Your task to perform on an android device: add a contact Image 0: 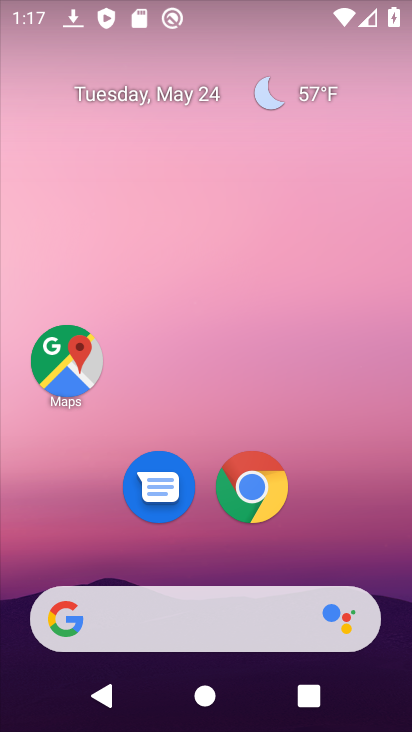
Step 0: drag from (235, 724) to (235, 23)
Your task to perform on an android device: add a contact Image 1: 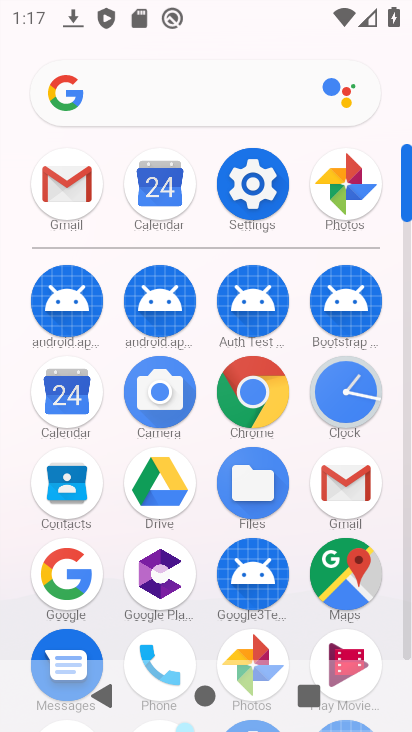
Step 1: click (68, 486)
Your task to perform on an android device: add a contact Image 2: 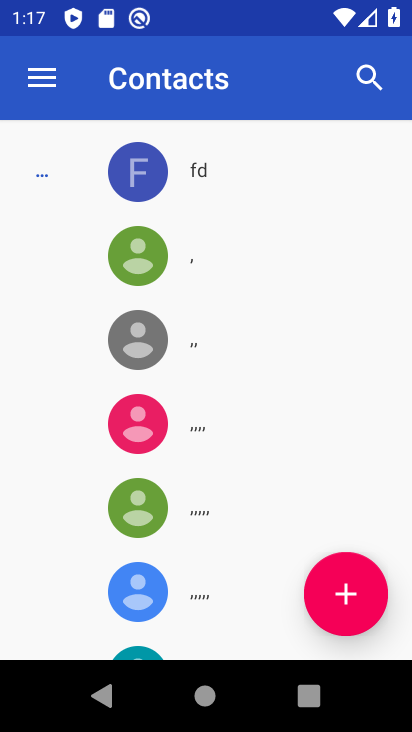
Step 2: click (353, 594)
Your task to perform on an android device: add a contact Image 3: 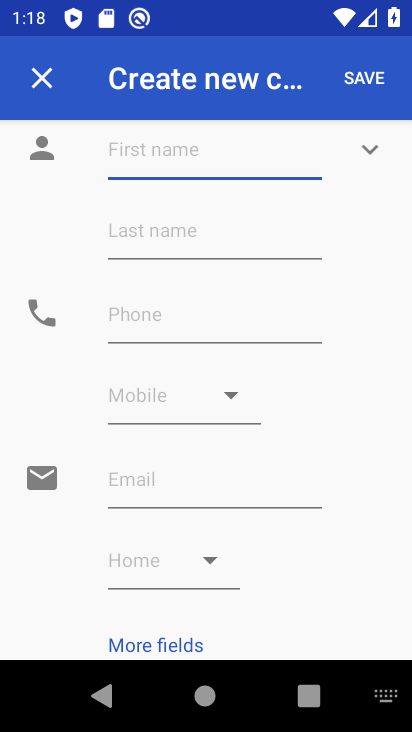
Step 3: type "jambuan"
Your task to perform on an android device: add a contact Image 4: 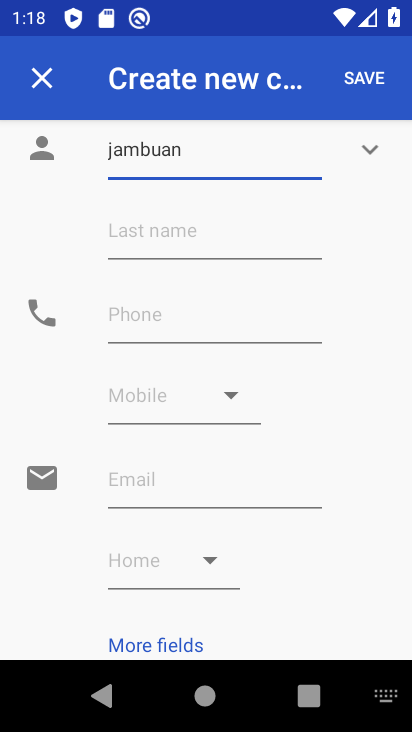
Step 4: click (204, 313)
Your task to perform on an android device: add a contact Image 5: 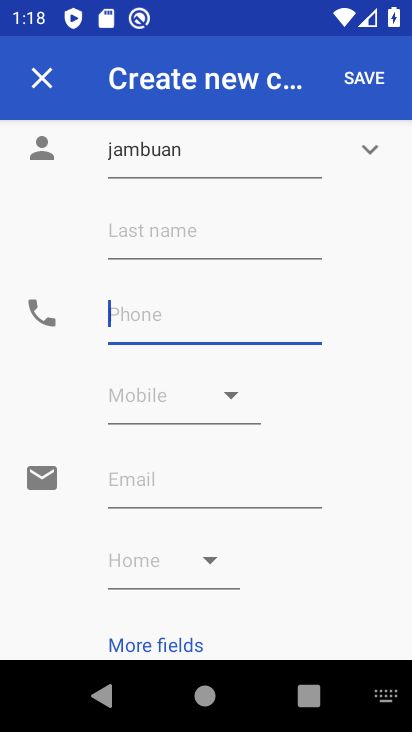
Step 5: type "888888"
Your task to perform on an android device: add a contact Image 6: 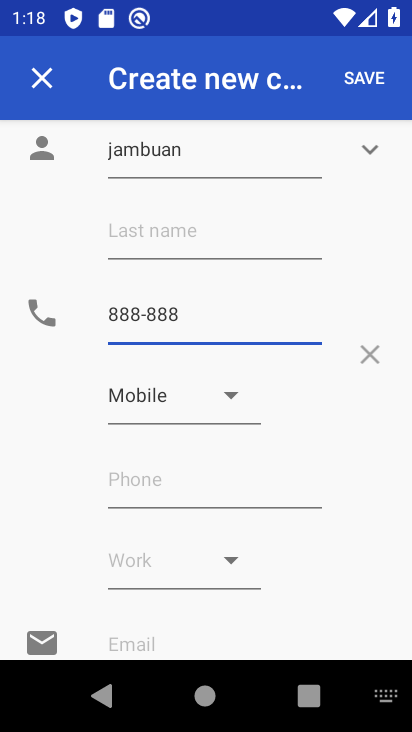
Step 6: click (355, 70)
Your task to perform on an android device: add a contact Image 7: 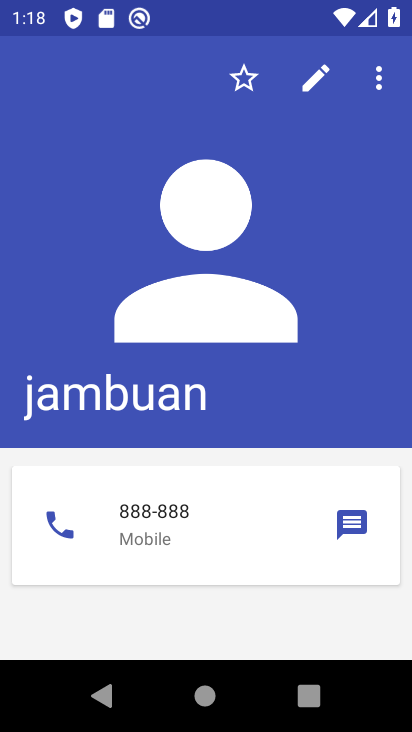
Step 7: task complete